Your task to perform on an android device: Go to location settings Image 0: 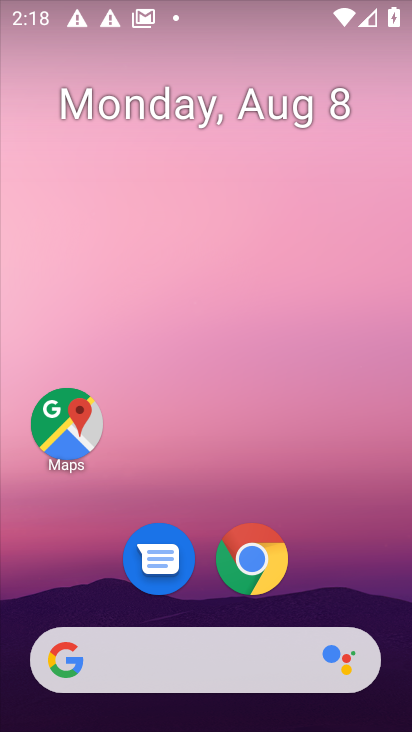
Step 0: drag from (185, 680) to (232, 346)
Your task to perform on an android device: Go to location settings Image 1: 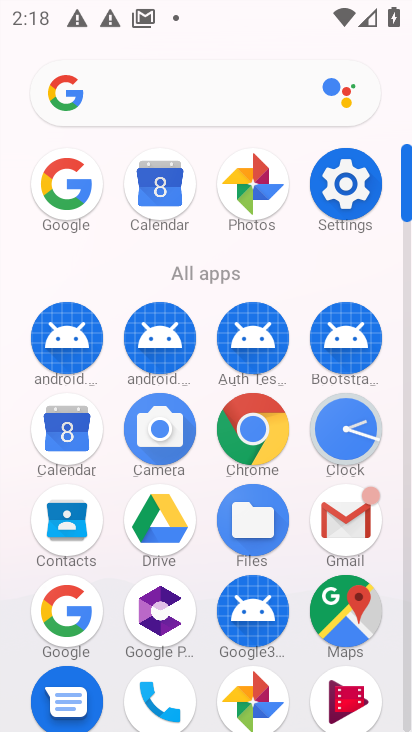
Step 1: click (347, 184)
Your task to perform on an android device: Go to location settings Image 2: 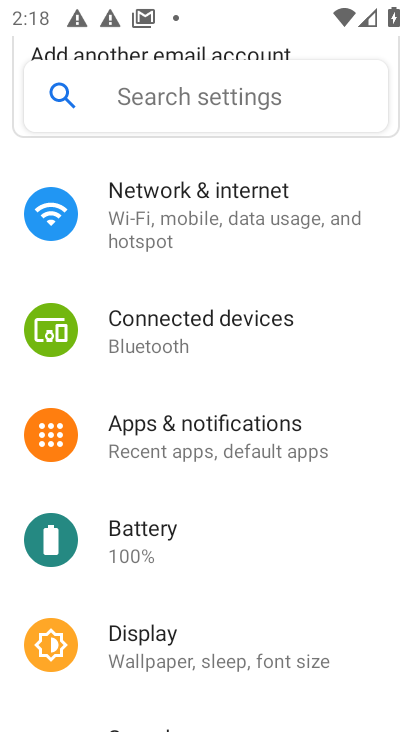
Step 2: drag from (193, 504) to (224, 423)
Your task to perform on an android device: Go to location settings Image 3: 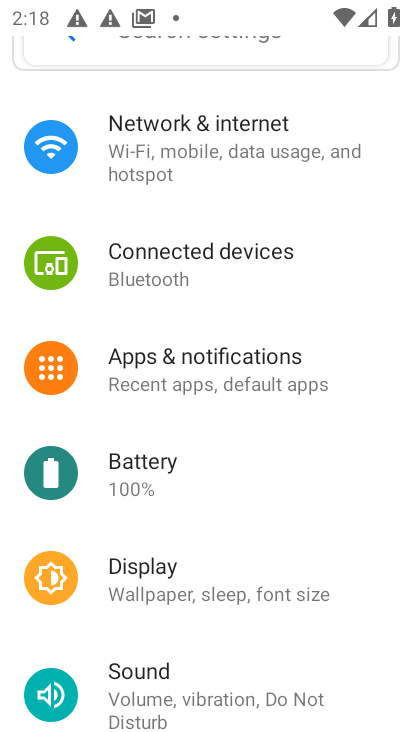
Step 3: drag from (209, 628) to (261, 541)
Your task to perform on an android device: Go to location settings Image 4: 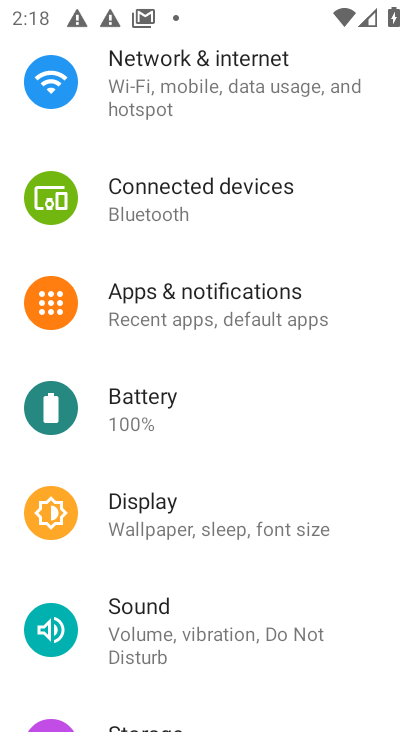
Step 4: drag from (231, 583) to (278, 483)
Your task to perform on an android device: Go to location settings Image 5: 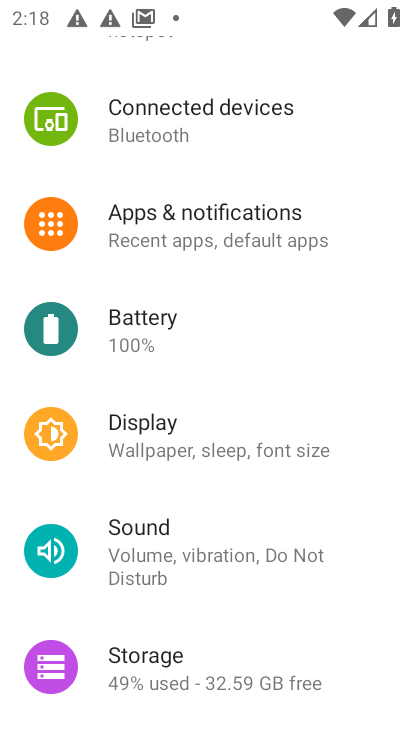
Step 5: drag from (227, 614) to (279, 518)
Your task to perform on an android device: Go to location settings Image 6: 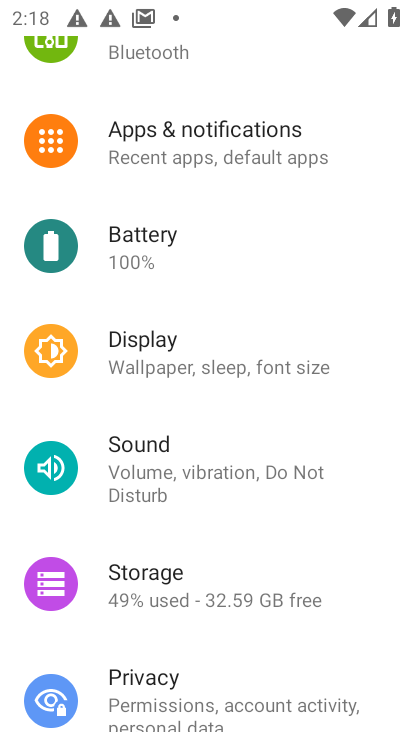
Step 6: drag from (243, 569) to (273, 472)
Your task to perform on an android device: Go to location settings Image 7: 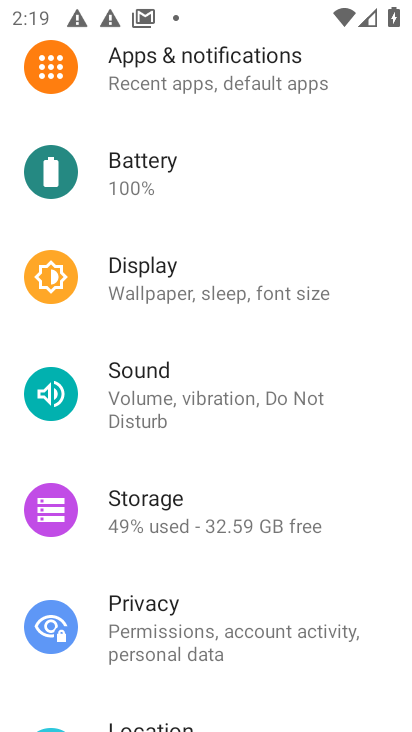
Step 7: drag from (236, 669) to (262, 530)
Your task to perform on an android device: Go to location settings Image 8: 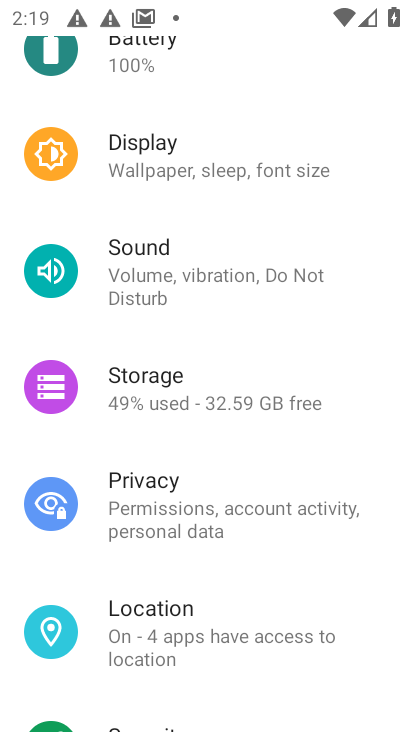
Step 8: click (179, 637)
Your task to perform on an android device: Go to location settings Image 9: 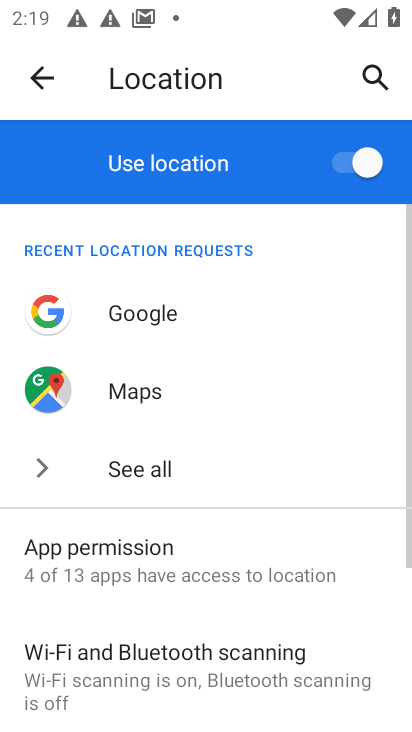
Step 9: task complete